Your task to perform on an android device: Open location settings Image 0: 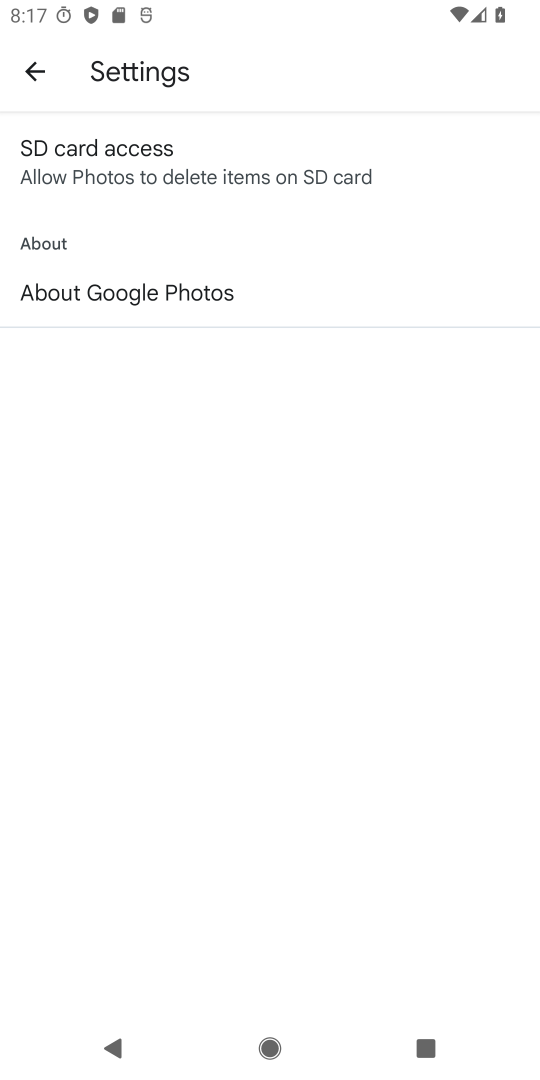
Step 0: press home button
Your task to perform on an android device: Open location settings Image 1: 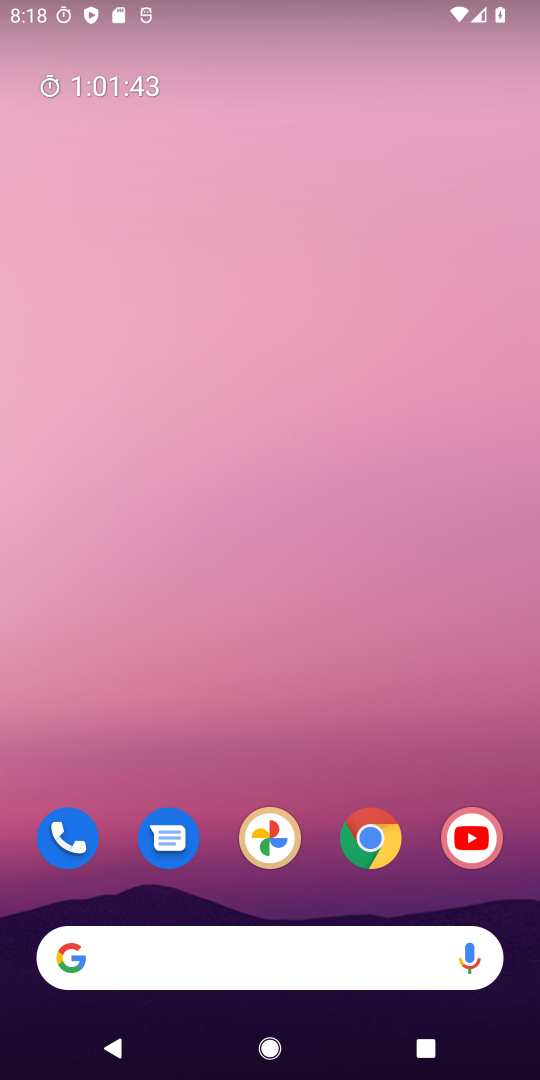
Step 1: drag from (319, 889) to (393, 0)
Your task to perform on an android device: Open location settings Image 2: 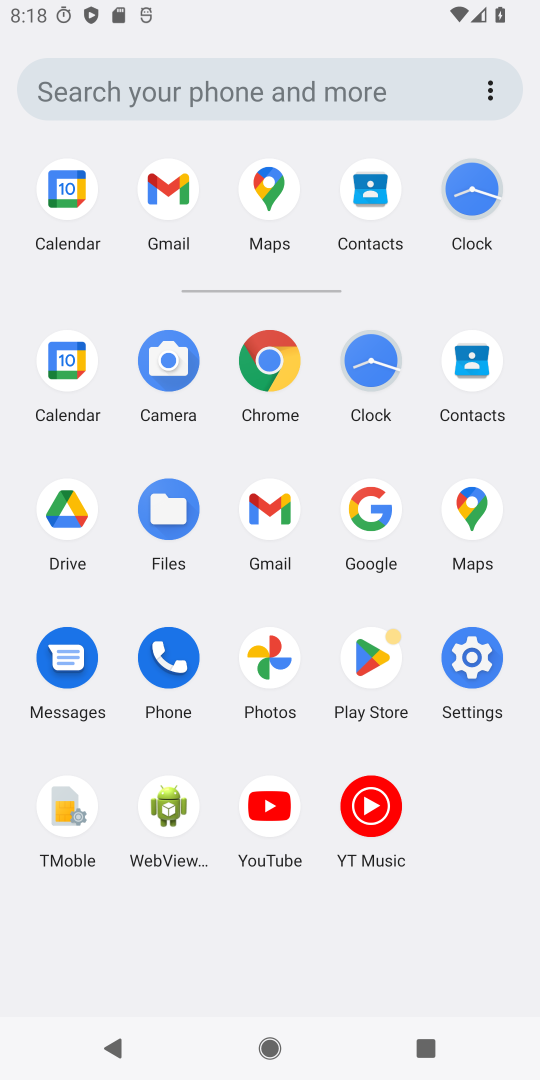
Step 2: click (443, 659)
Your task to perform on an android device: Open location settings Image 3: 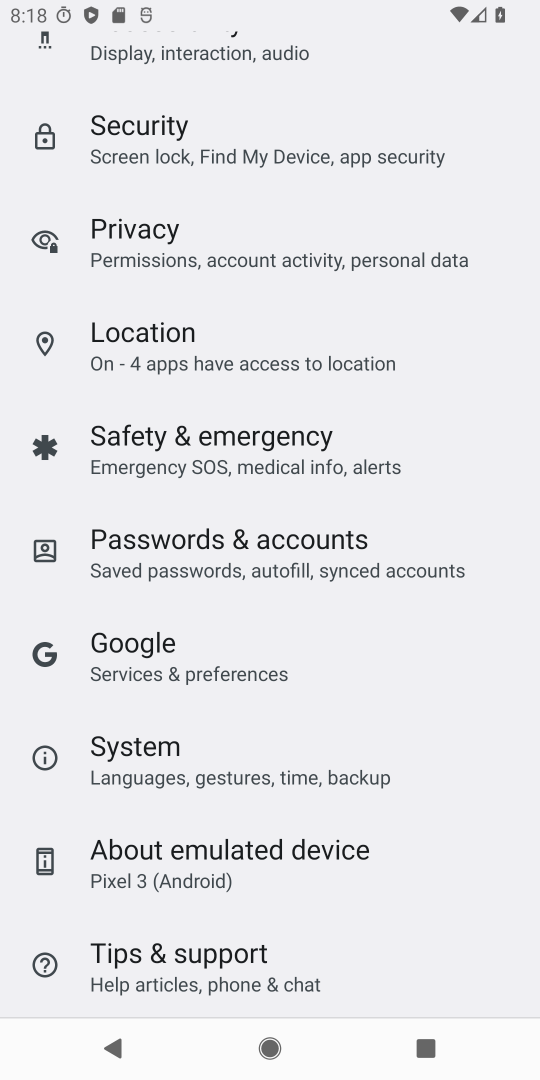
Step 3: click (92, 353)
Your task to perform on an android device: Open location settings Image 4: 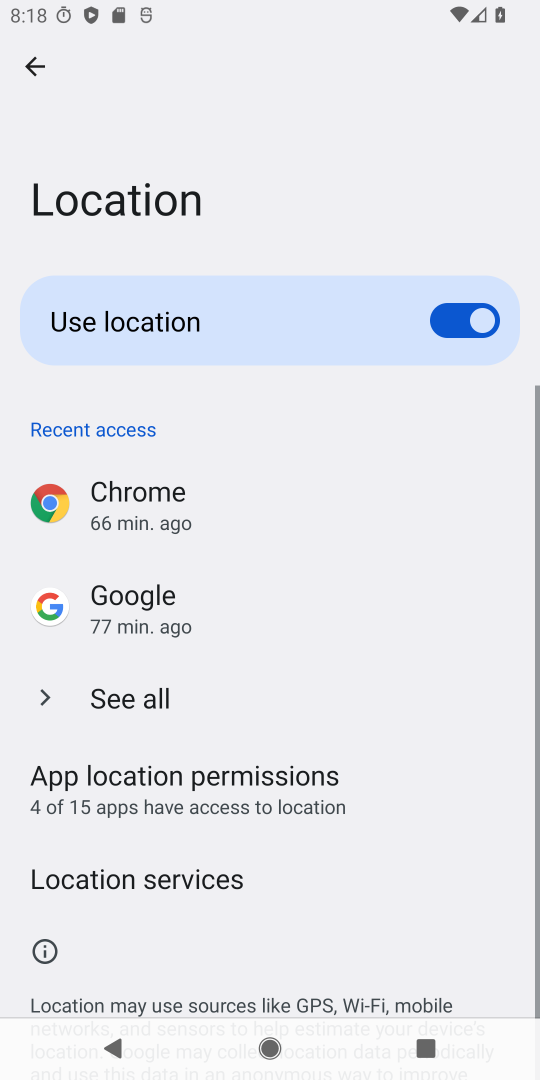
Step 4: task complete